Your task to perform on an android device: turn off airplane mode Image 0: 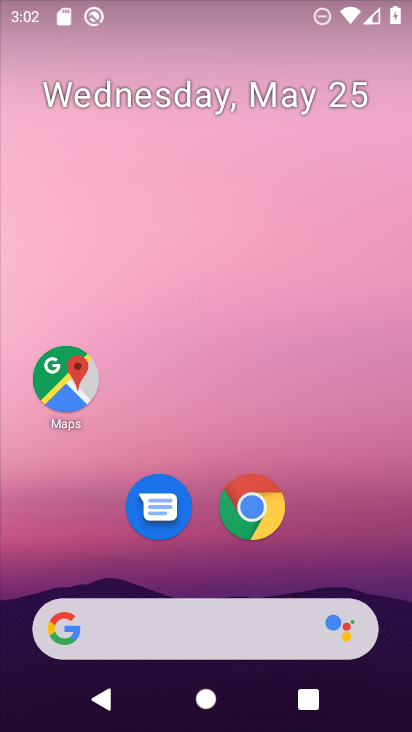
Step 0: drag from (230, 684) to (315, 103)
Your task to perform on an android device: turn off airplane mode Image 1: 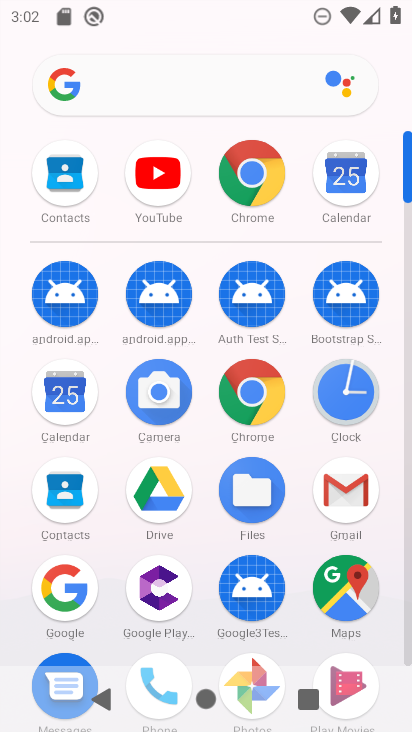
Step 1: drag from (164, 471) to (181, 137)
Your task to perform on an android device: turn off airplane mode Image 2: 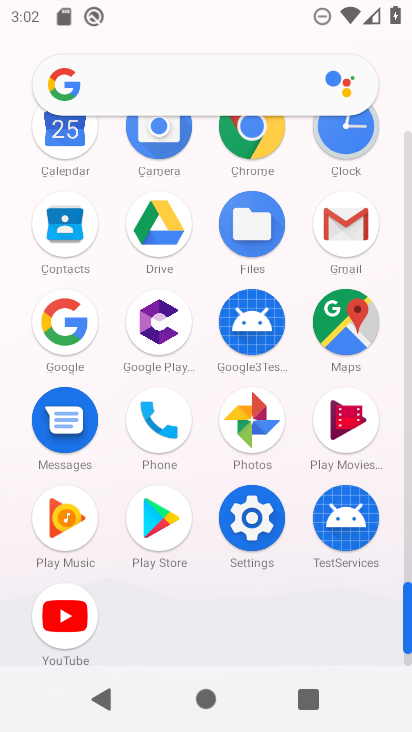
Step 2: click (255, 525)
Your task to perform on an android device: turn off airplane mode Image 3: 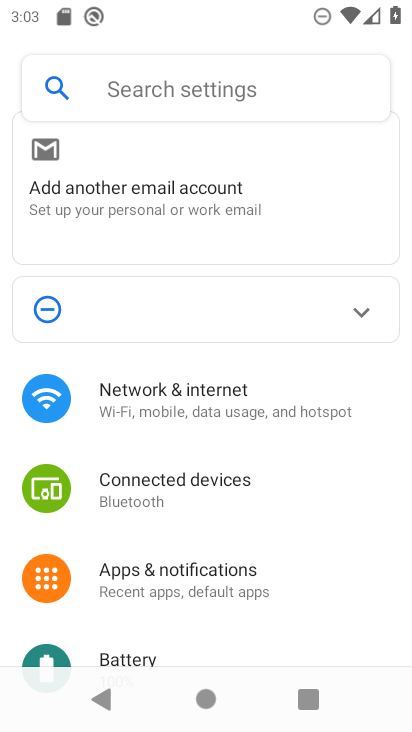
Step 3: drag from (182, 590) to (237, 445)
Your task to perform on an android device: turn off airplane mode Image 4: 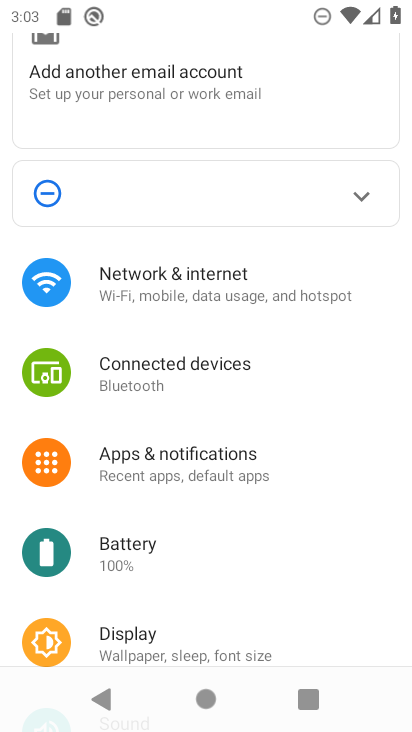
Step 4: click (236, 309)
Your task to perform on an android device: turn off airplane mode Image 5: 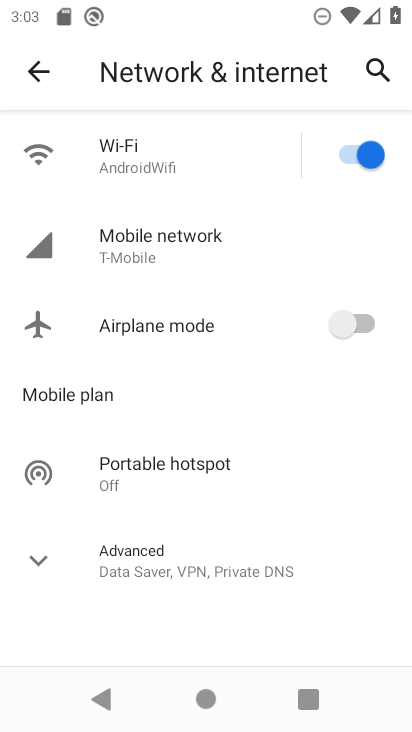
Step 5: task complete